Your task to perform on an android device: What is the news today? Image 0: 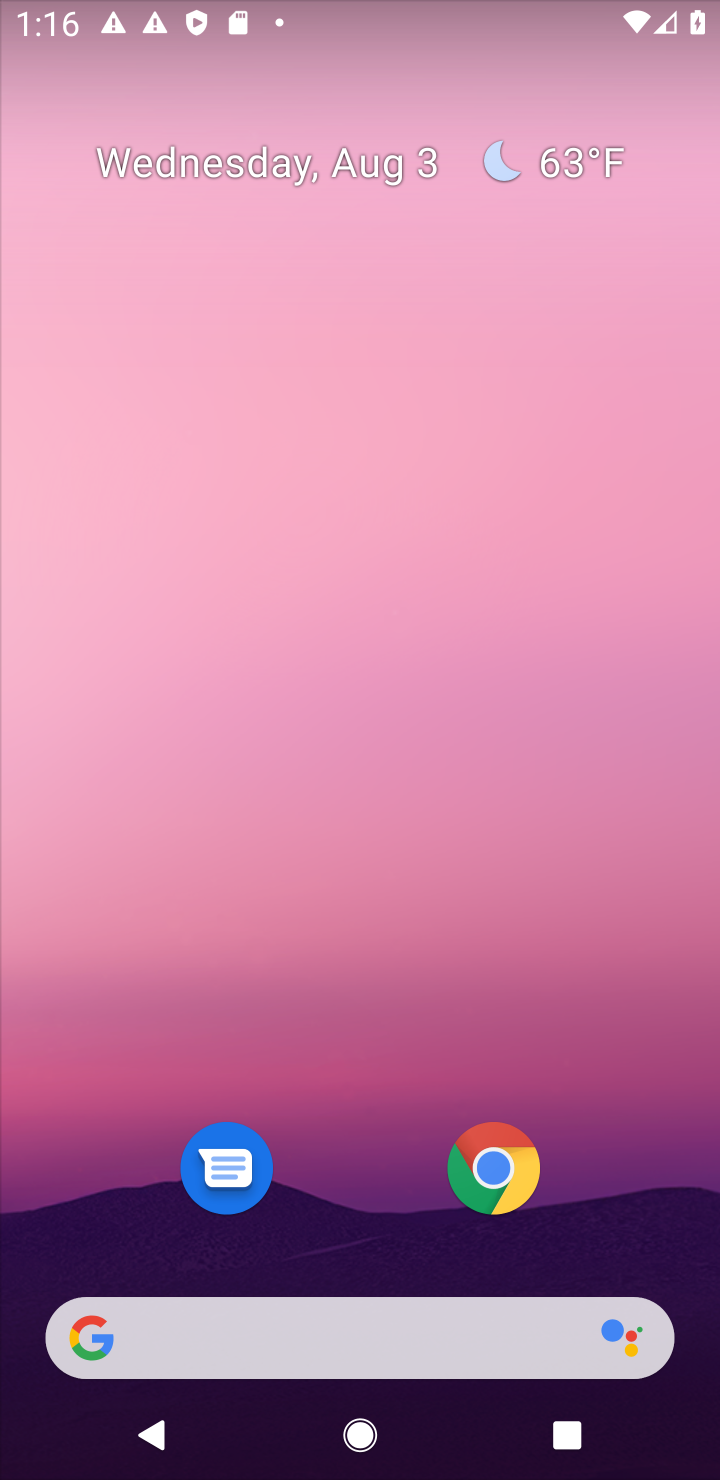
Step 0: drag from (1, 682) to (700, 677)
Your task to perform on an android device: What is the news today? Image 1: 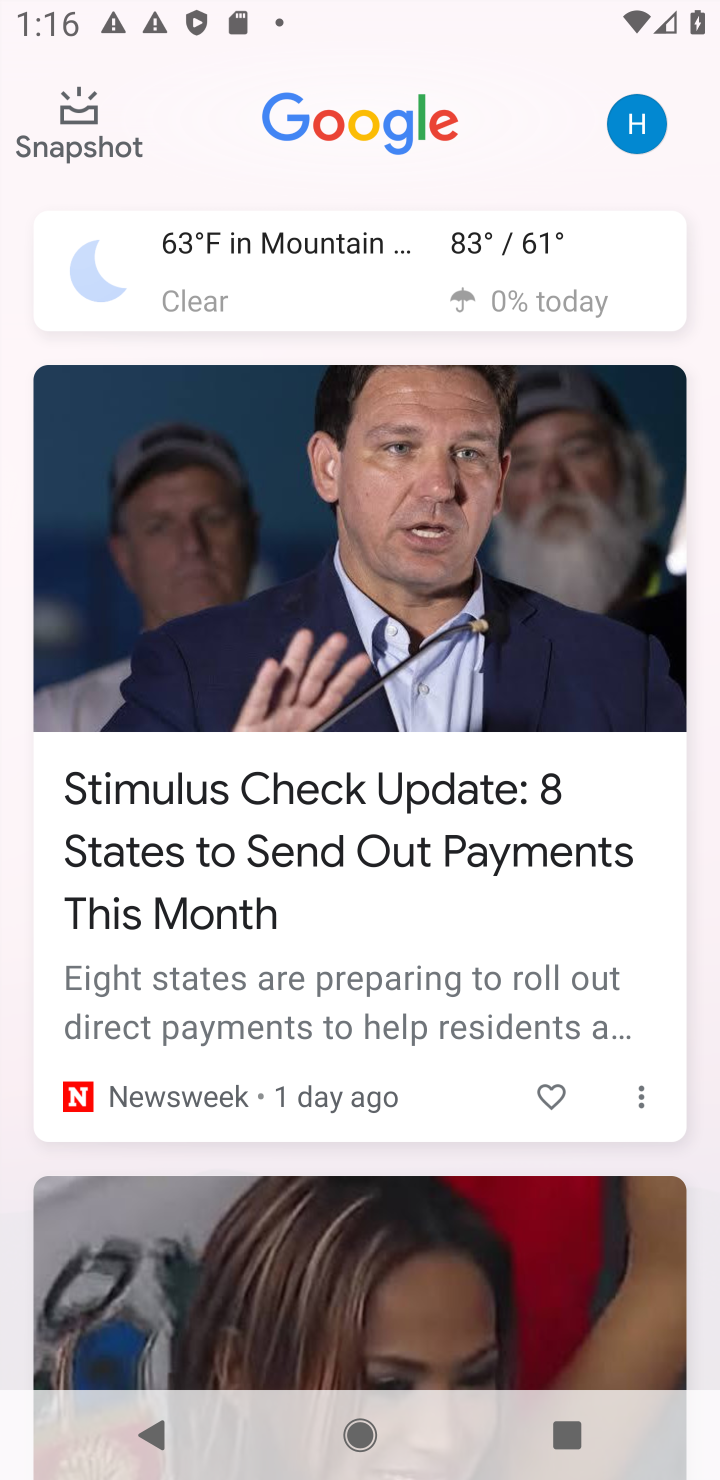
Step 1: task complete